Your task to perform on an android device: Go to settings Image 0: 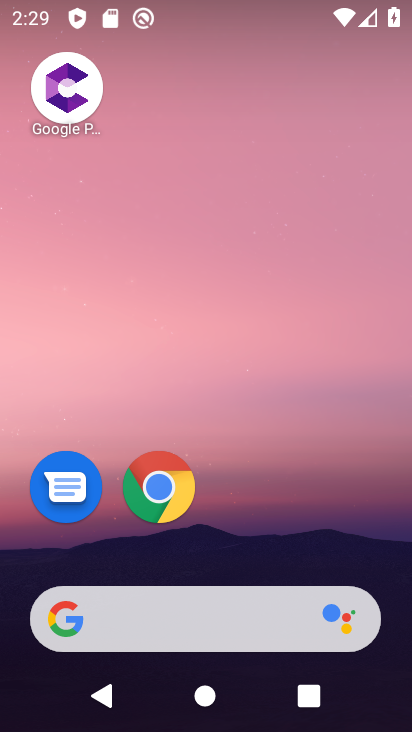
Step 0: drag from (352, 571) to (293, 195)
Your task to perform on an android device: Go to settings Image 1: 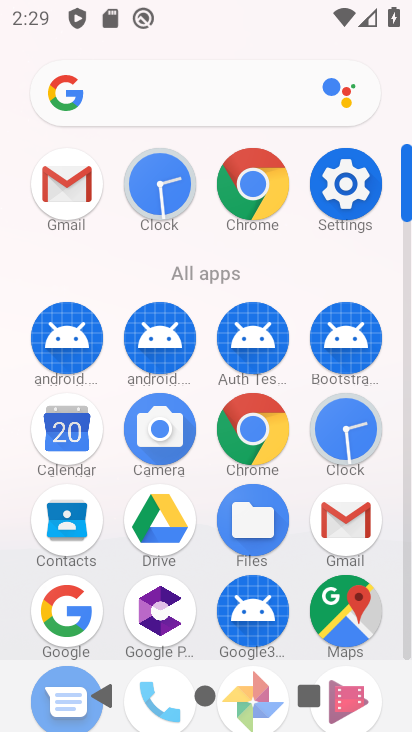
Step 1: click (359, 199)
Your task to perform on an android device: Go to settings Image 2: 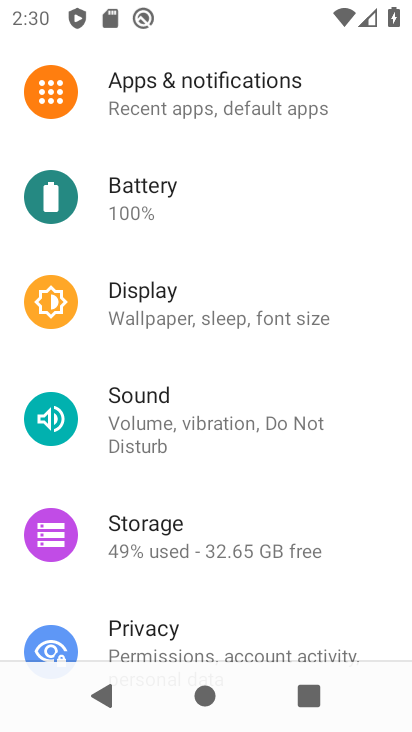
Step 2: task complete